Your task to perform on an android device: change the clock style Image 0: 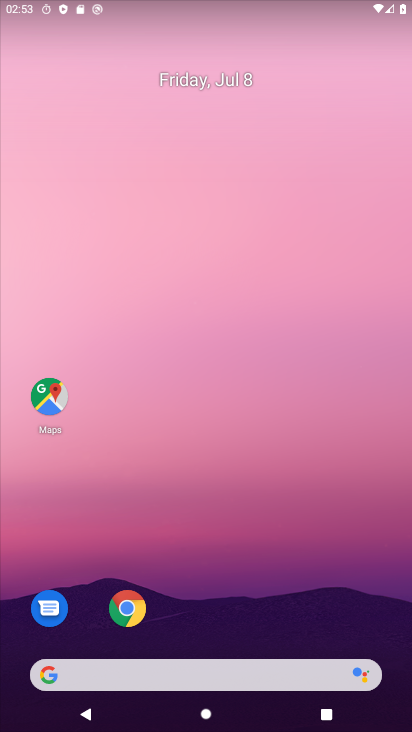
Step 0: drag from (252, 600) to (276, 153)
Your task to perform on an android device: change the clock style Image 1: 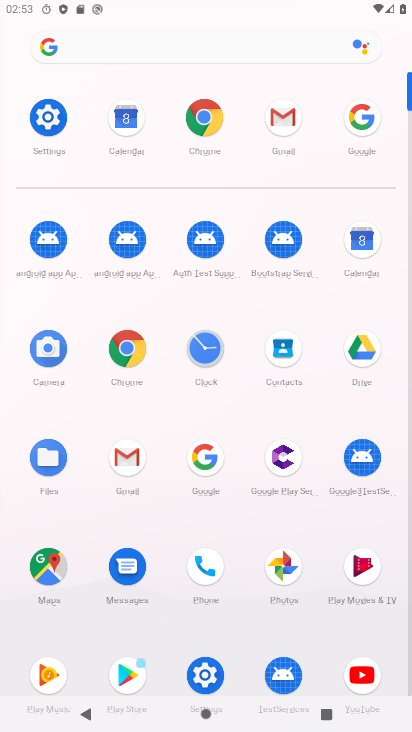
Step 1: click (206, 347)
Your task to perform on an android device: change the clock style Image 2: 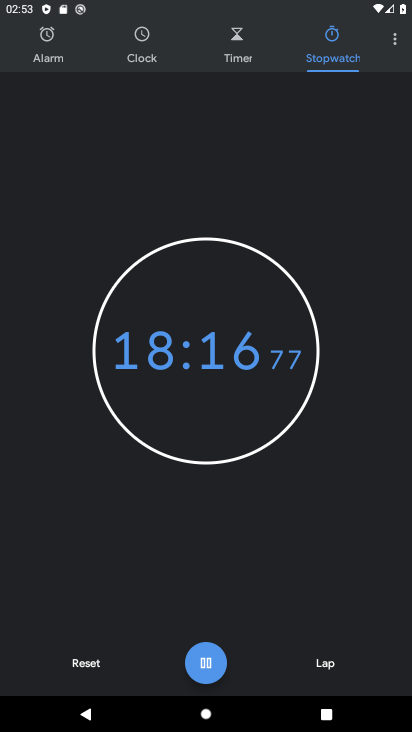
Step 2: click (388, 34)
Your task to perform on an android device: change the clock style Image 3: 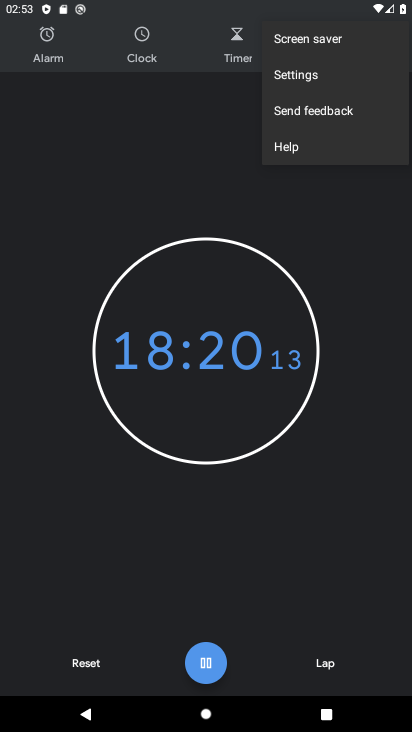
Step 3: click (295, 74)
Your task to perform on an android device: change the clock style Image 4: 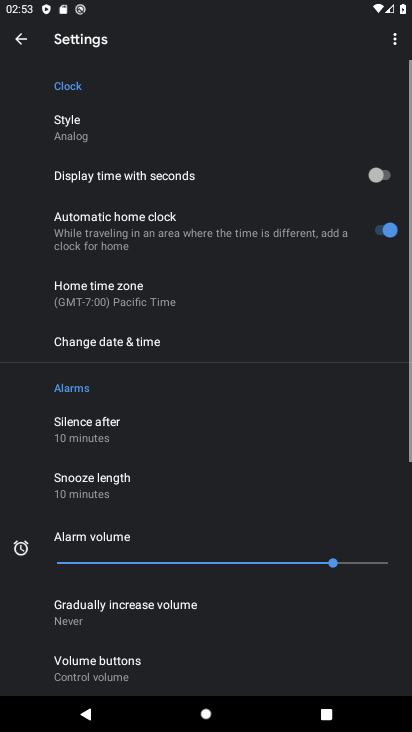
Step 4: click (114, 117)
Your task to perform on an android device: change the clock style Image 5: 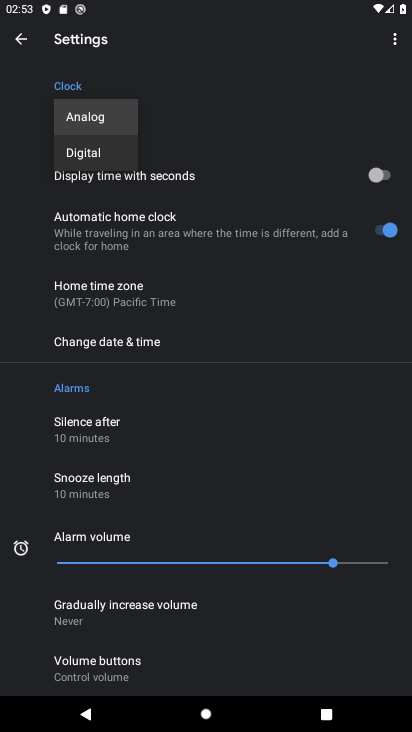
Step 5: click (101, 154)
Your task to perform on an android device: change the clock style Image 6: 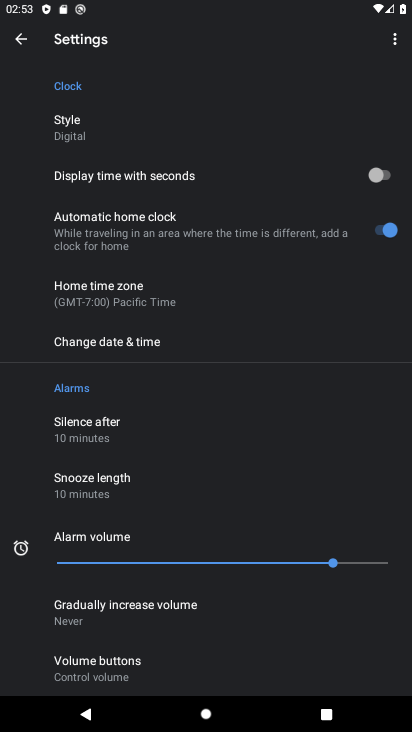
Step 6: task complete